Your task to perform on an android device: Go to network settings Image 0: 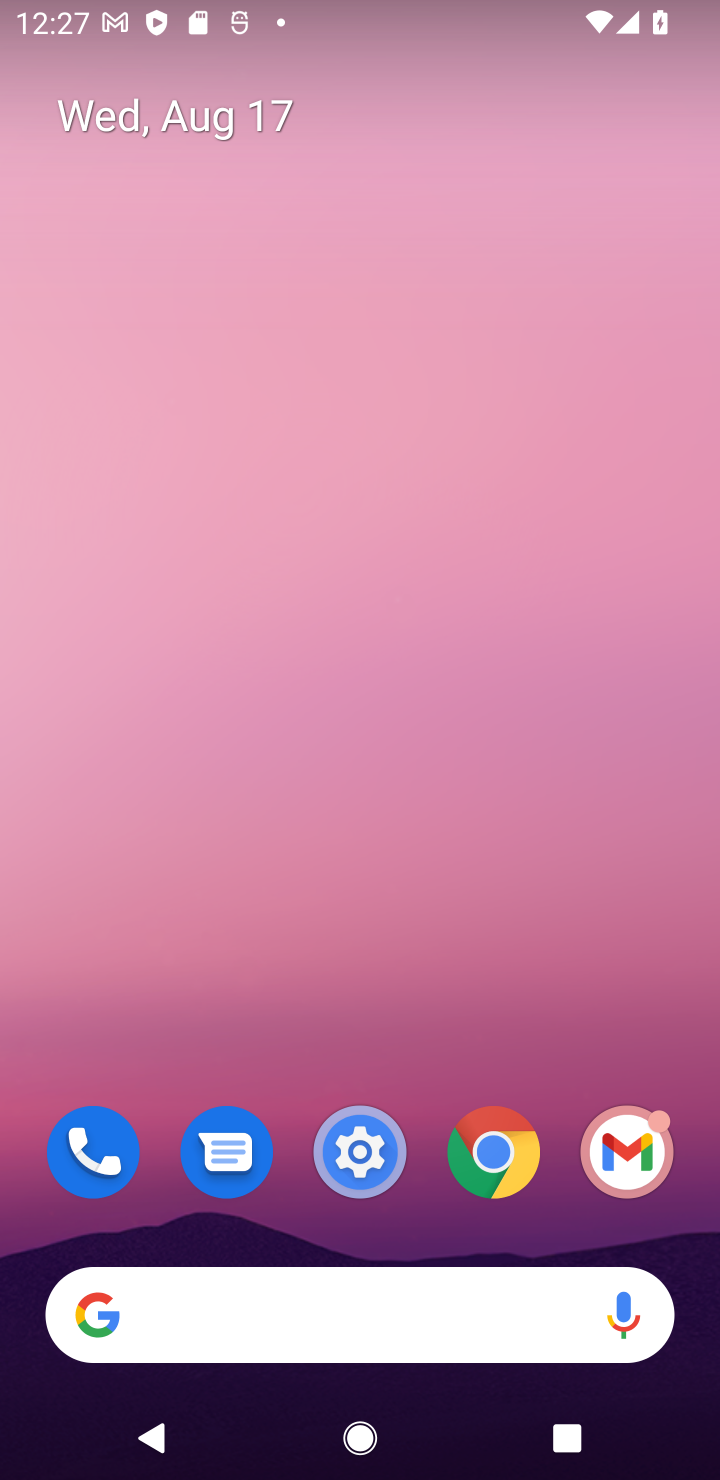
Step 0: drag from (678, 1148) to (430, 280)
Your task to perform on an android device: Go to network settings Image 1: 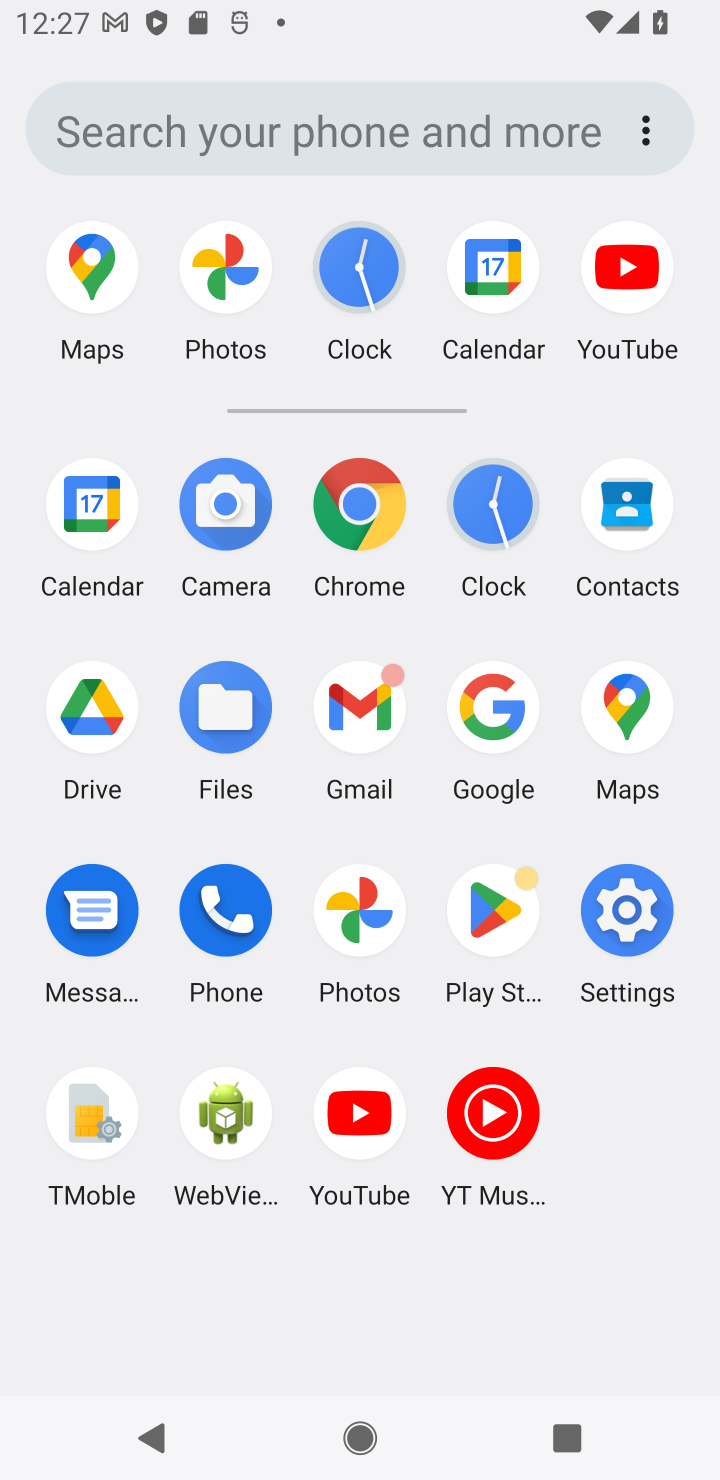
Step 1: click (634, 947)
Your task to perform on an android device: Go to network settings Image 2: 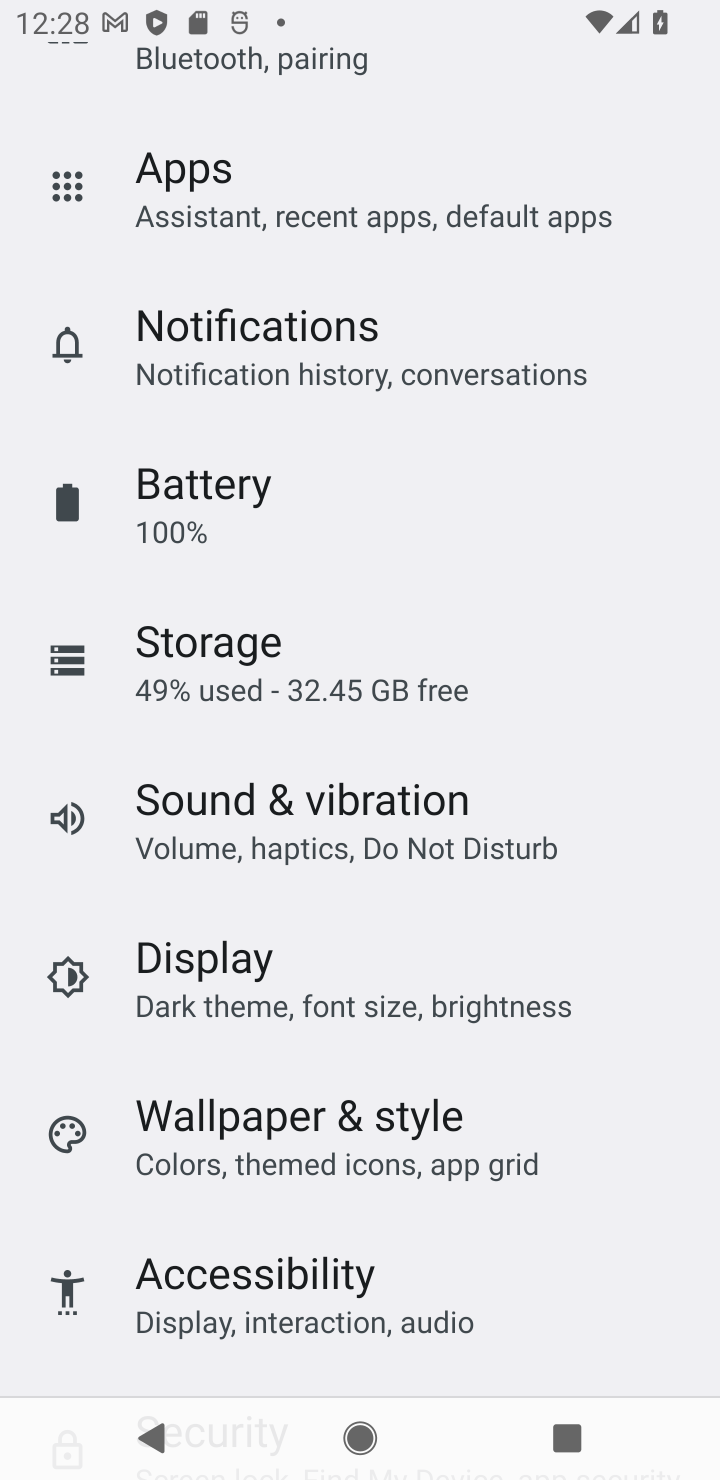
Step 2: drag from (262, 226) to (388, 1393)
Your task to perform on an android device: Go to network settings Image 3: 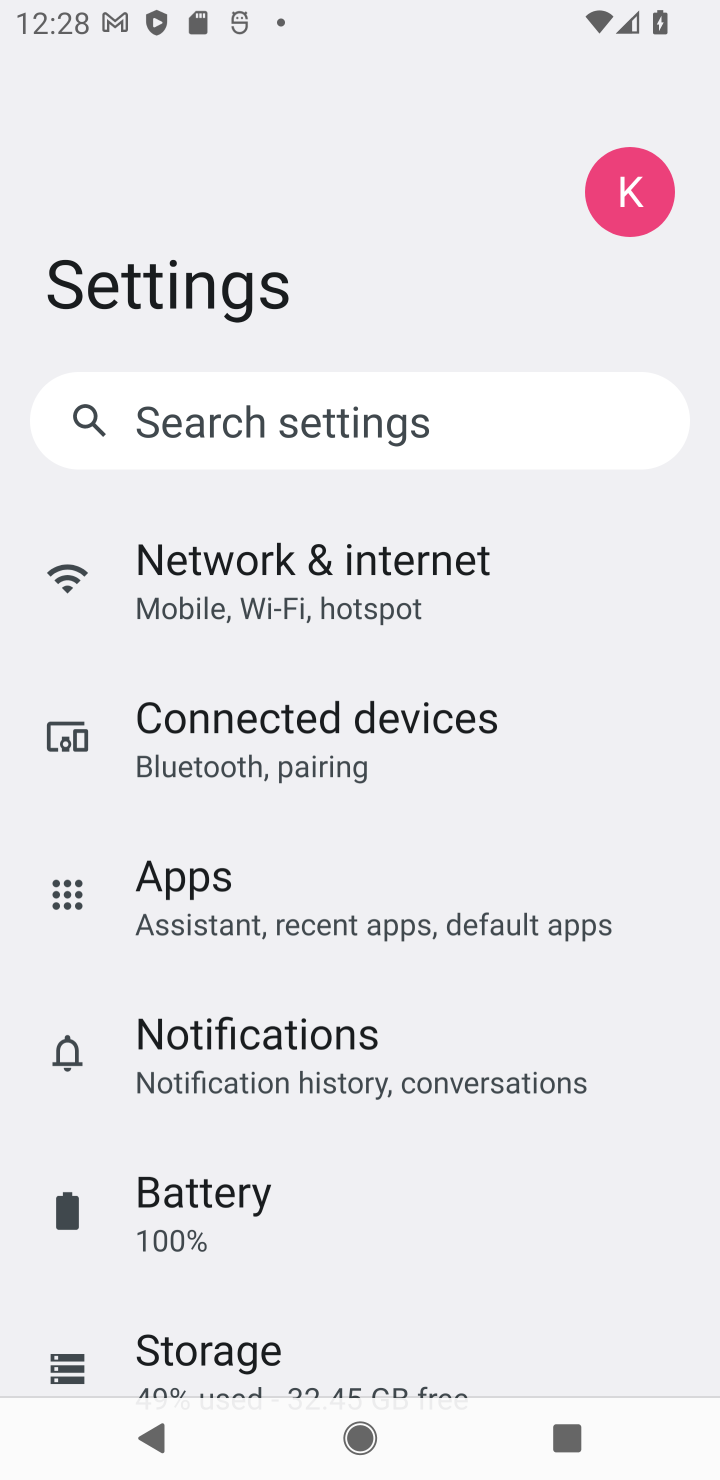
Step 3: click (367, 590)
Your task to perform on an android device: Go to network settings Image 4: 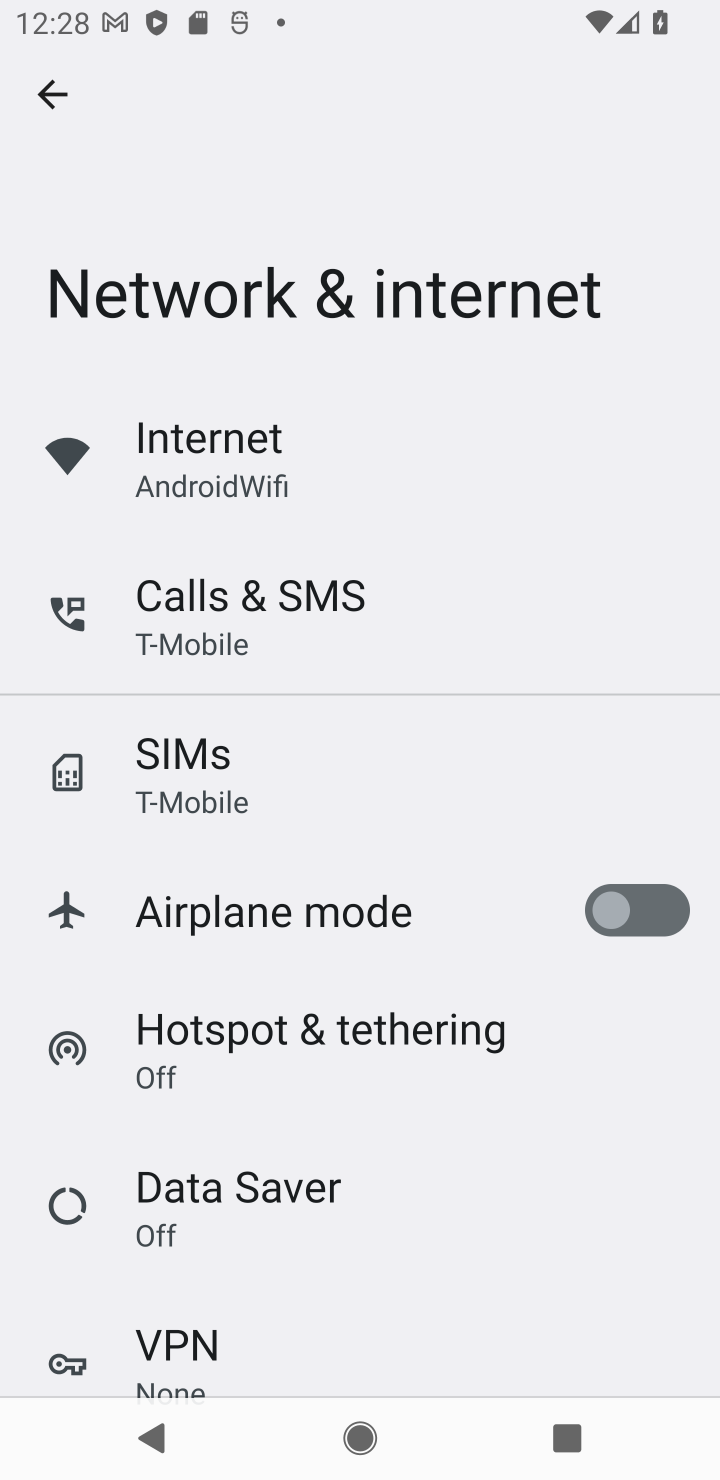
Step 4: task complete